Your task to perform on an android device: Go to internet settings Image 0: 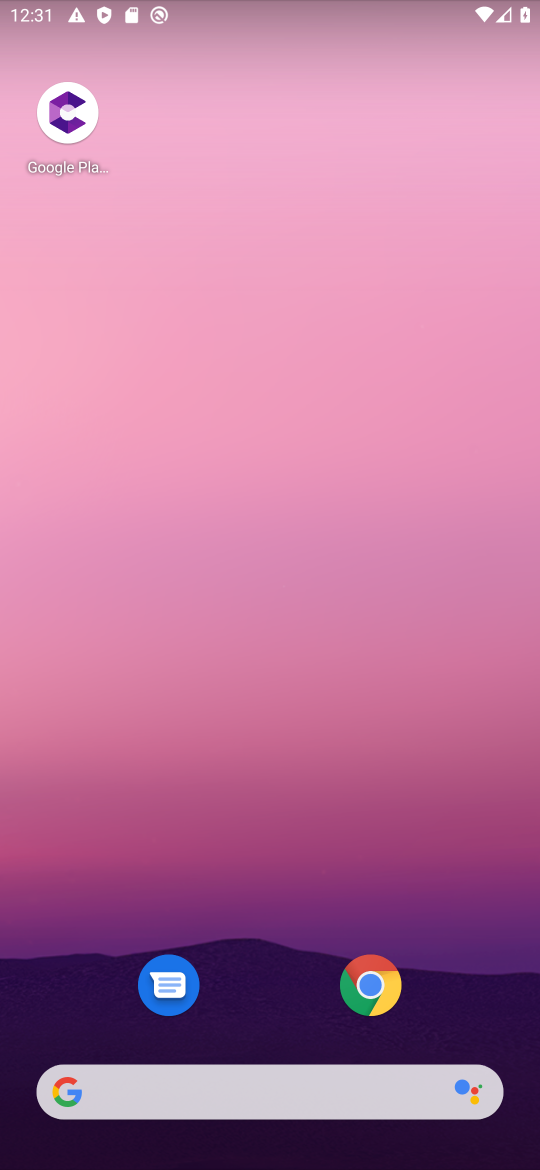
Step 0: drag from (298, 909) to (253, 240)
Your task to perform on an android device: Go to internet settings Image 1: 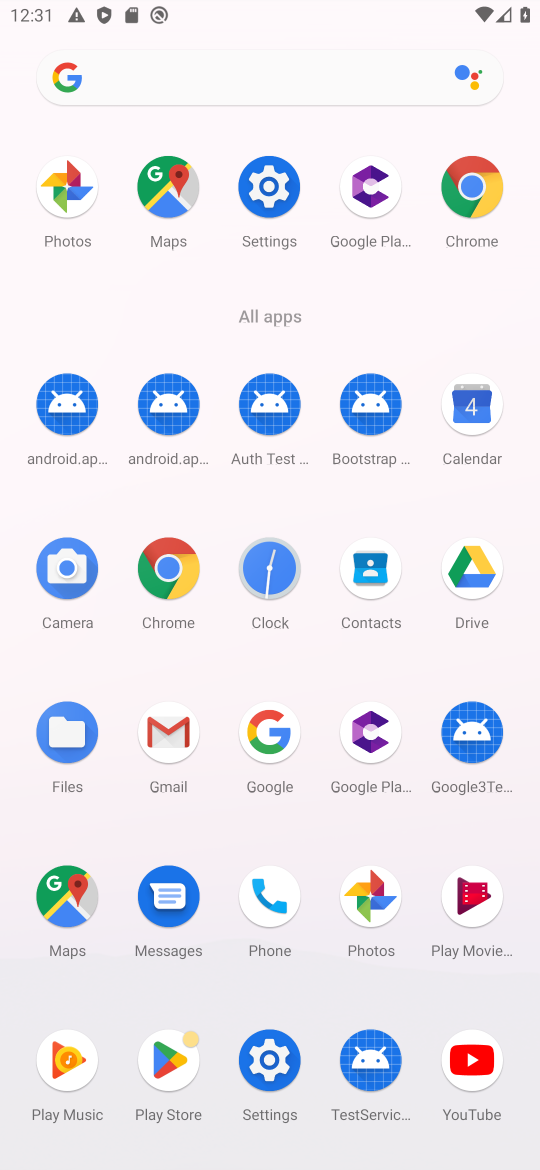
Step 1: click (270, 184)
Your task to perform on an android device: Go to internet settings Image 2: 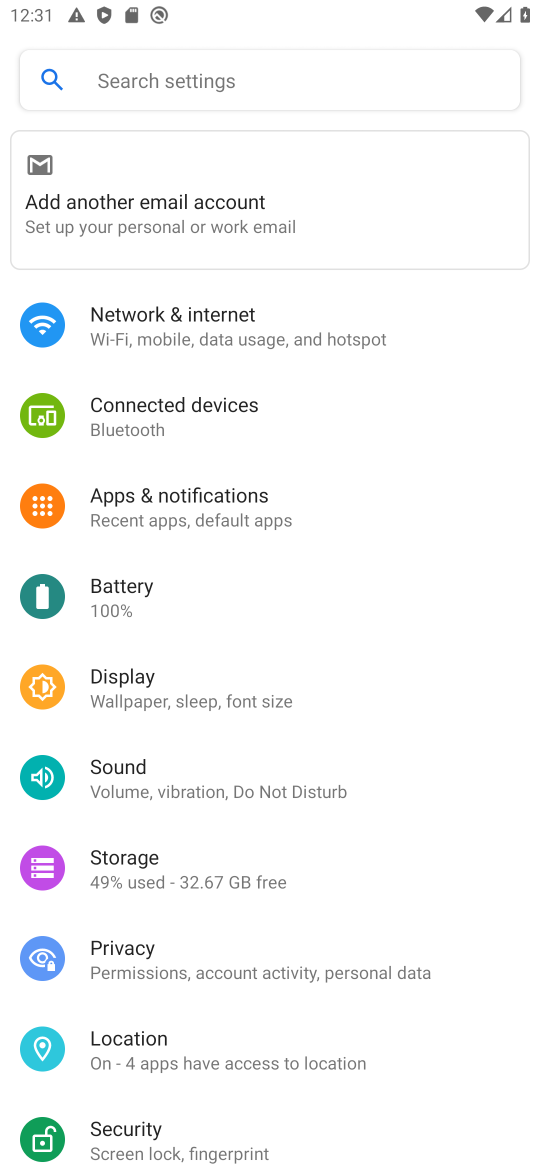
Step 2: click (174, 313)
Your task to perform on an android device: Go to internet settings Image 3: 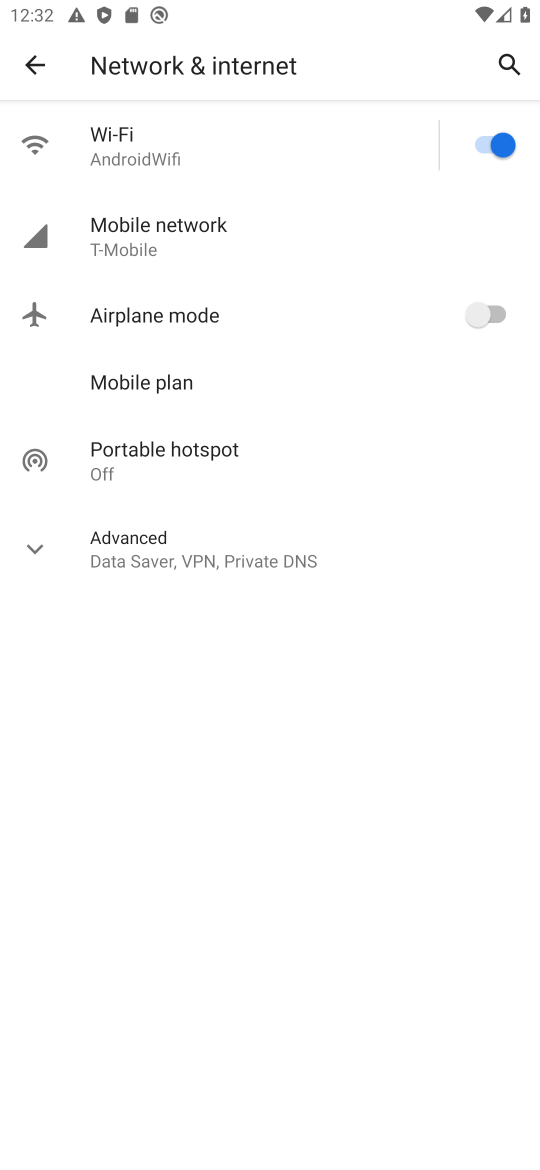
Step 3: task complete